Your task to perform on an android device: refresh tabs in the chrome app Image 0: 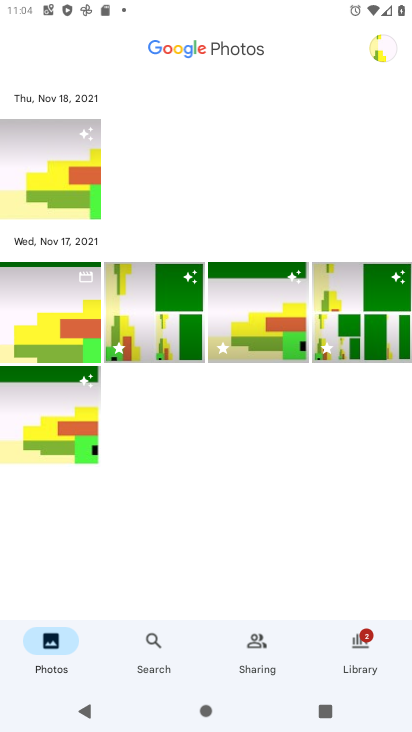
Step 0: press home button
Your task to perform on an android device: refresh tabs in the chrome app Image 1: 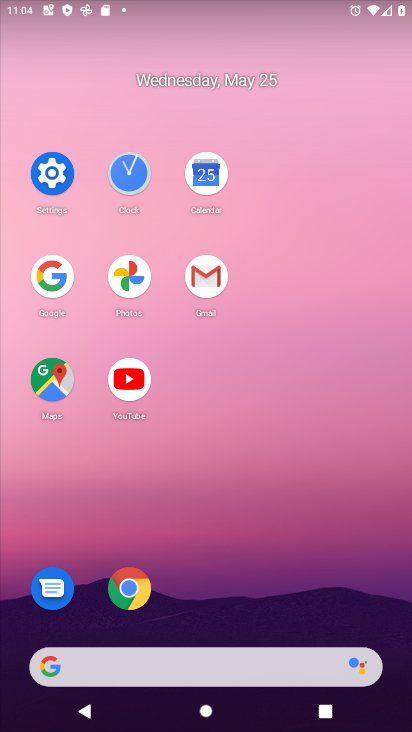
Step 1: click (136, 583)
Your task to perform on an android device: refresh tabs in the chrome app Image 2: 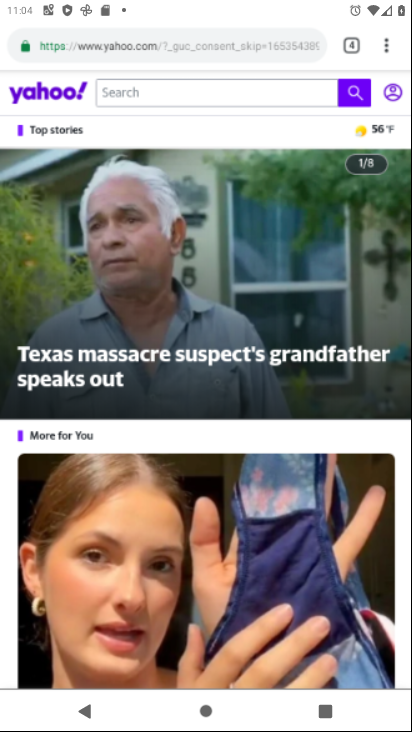
Step 2: click (378, 51)
Your task to perform on an android device: refresh tabs in the chrome app Image 3: 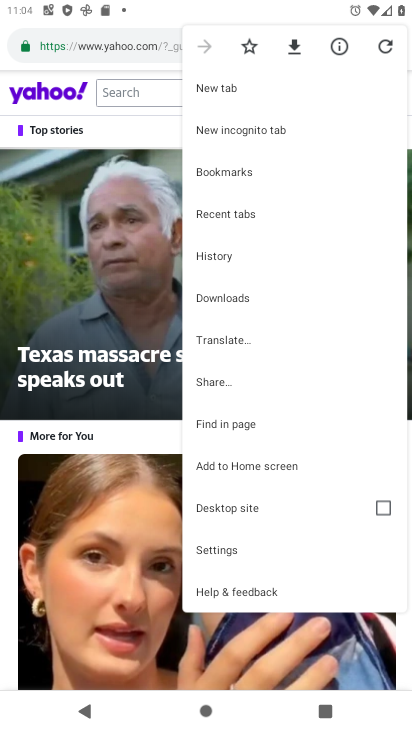
Step 3: click (382, 50)
Your task to perform on an android device: refresh tabs in the chrome app Image 4: 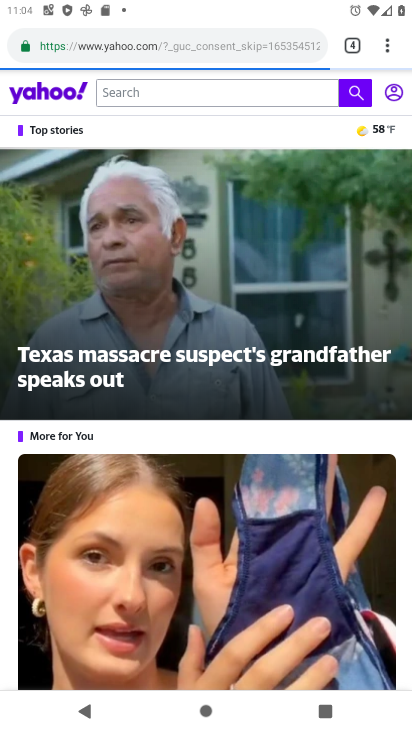
Step 4: task complete